Your task to perform on an android device: Open Android settings Image 0: 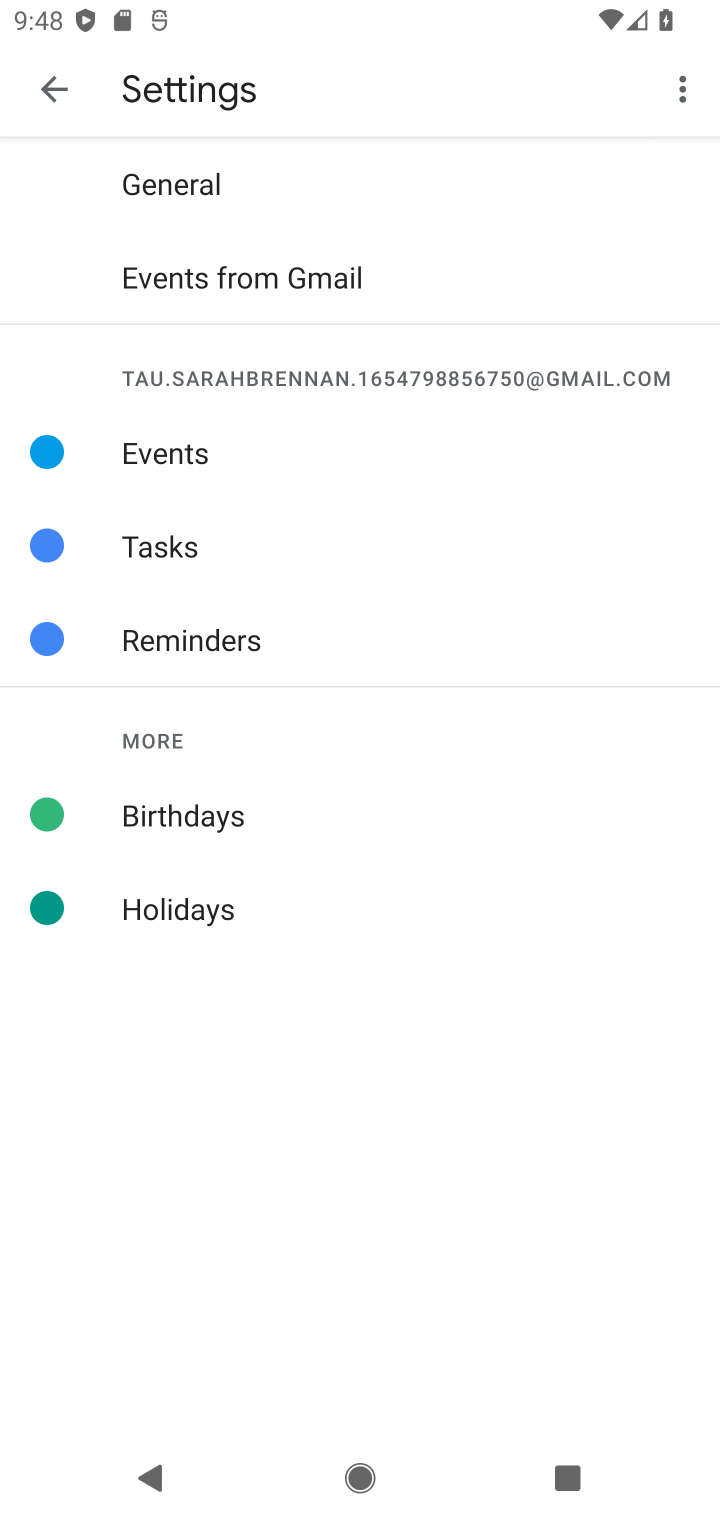
Step 0: press back button
Your task to perform on an android device: Open Android settings Image 1: 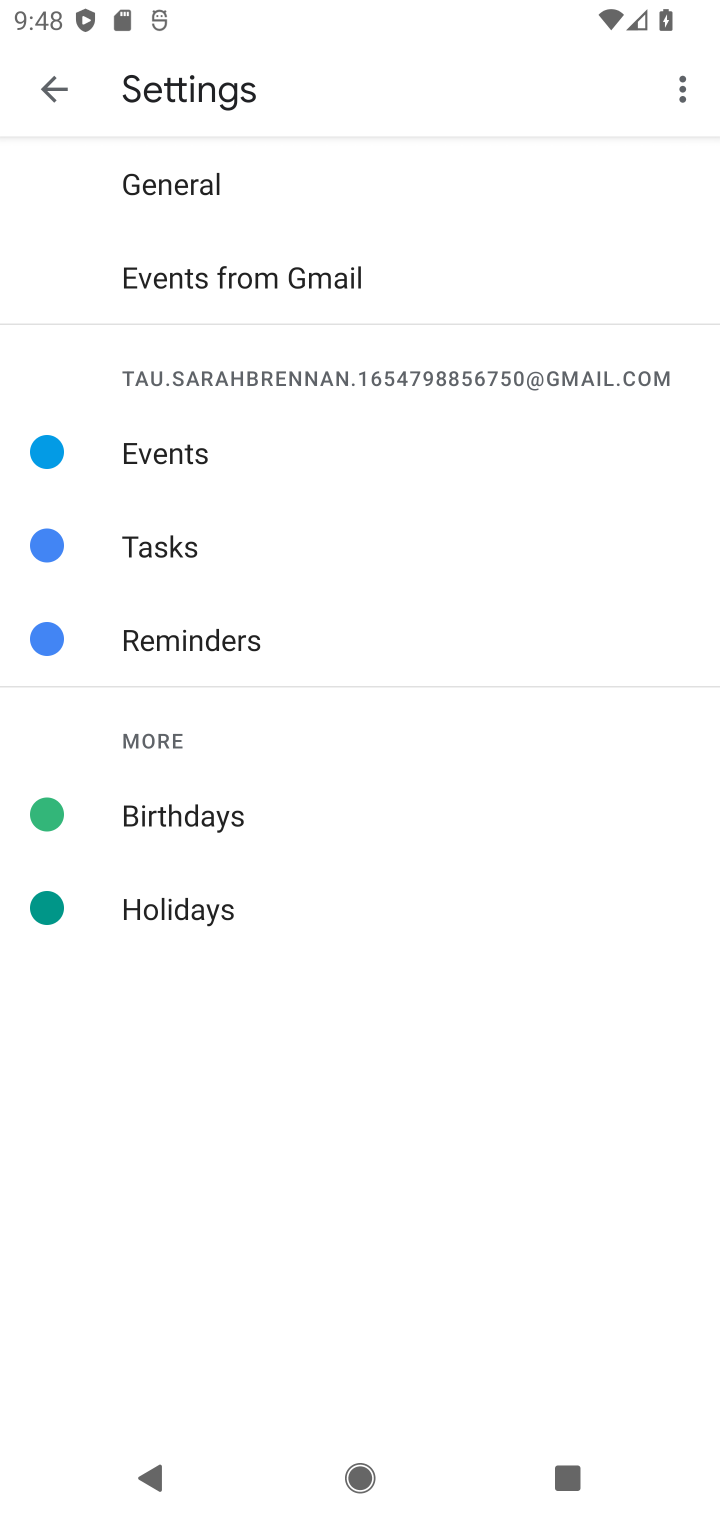
Step 1: press back button
Your task to perform on an android device: Open Android settings Image 2: 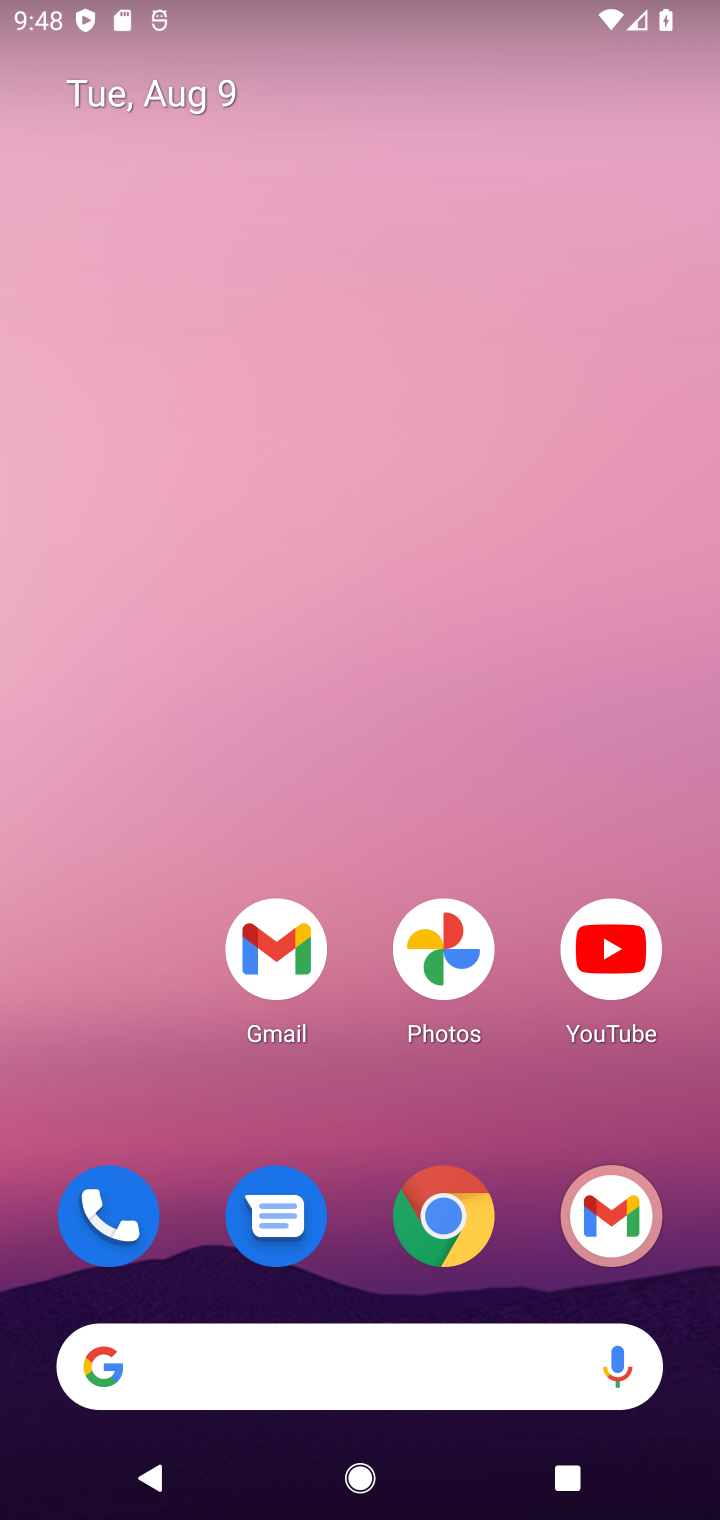
Step 2: press back button
Your task to perform on an android device: Open Android settings Image 3: 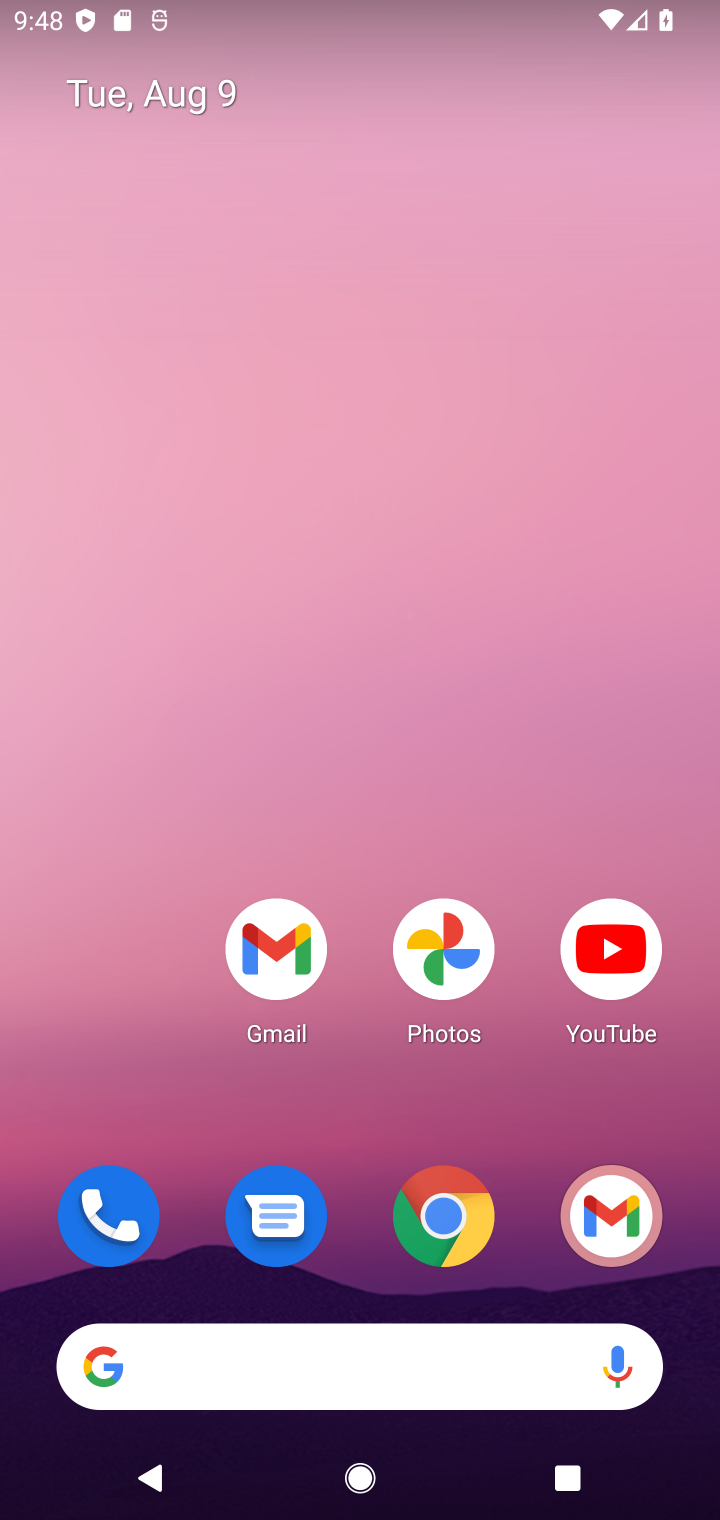
Step 3: drag from (107, 687) to (313, 45)
Your task to perform on an android device: Open Android settings Image 4: 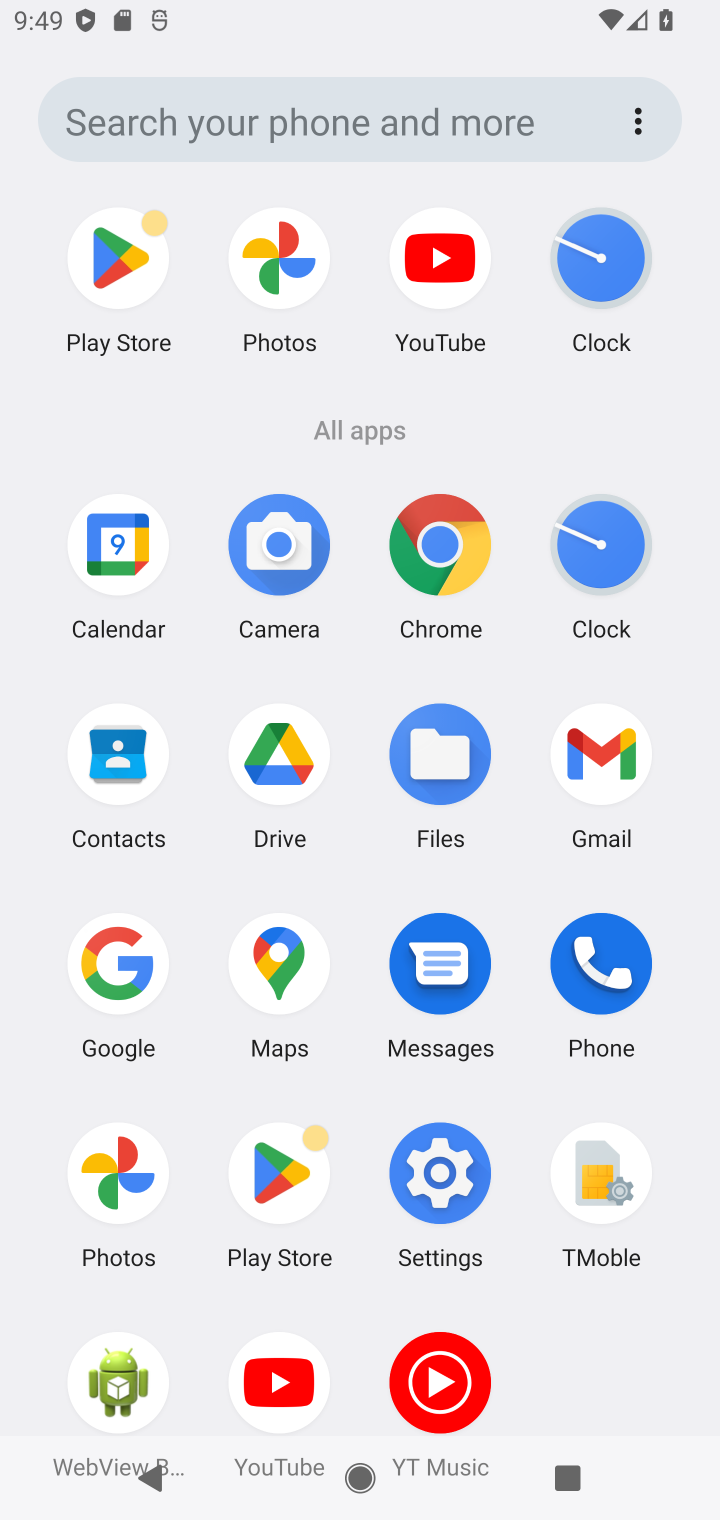
Step 4: click (429, 1202)
Your task to perform on an android device: Open Android settings Image 5: 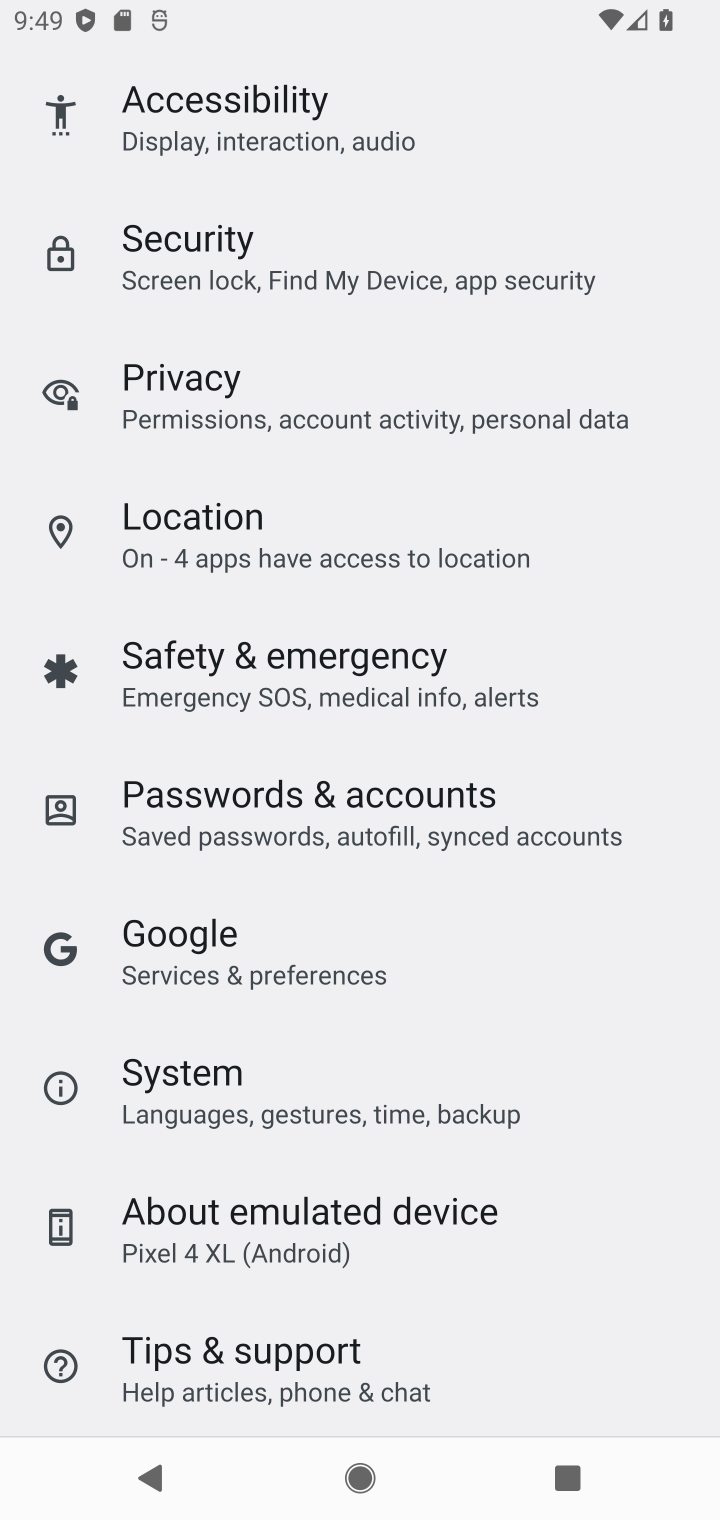
Step 5: drag from (382, 1332) to (707, 69)
Your task to perform on an android device: Open Android settings Image 6: 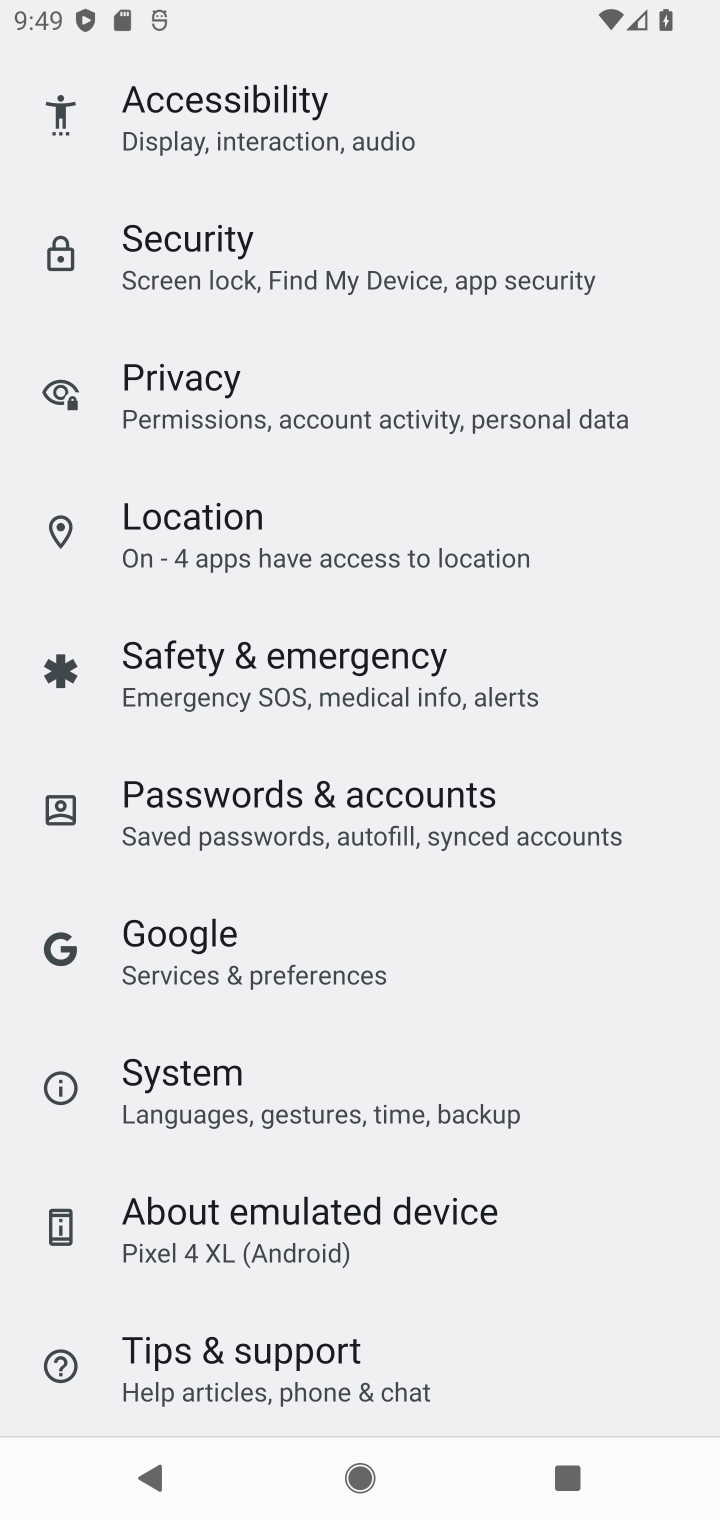
Step 6: click (298, 1258)
Your task to perform on an android device: Open Android settings Image 7: 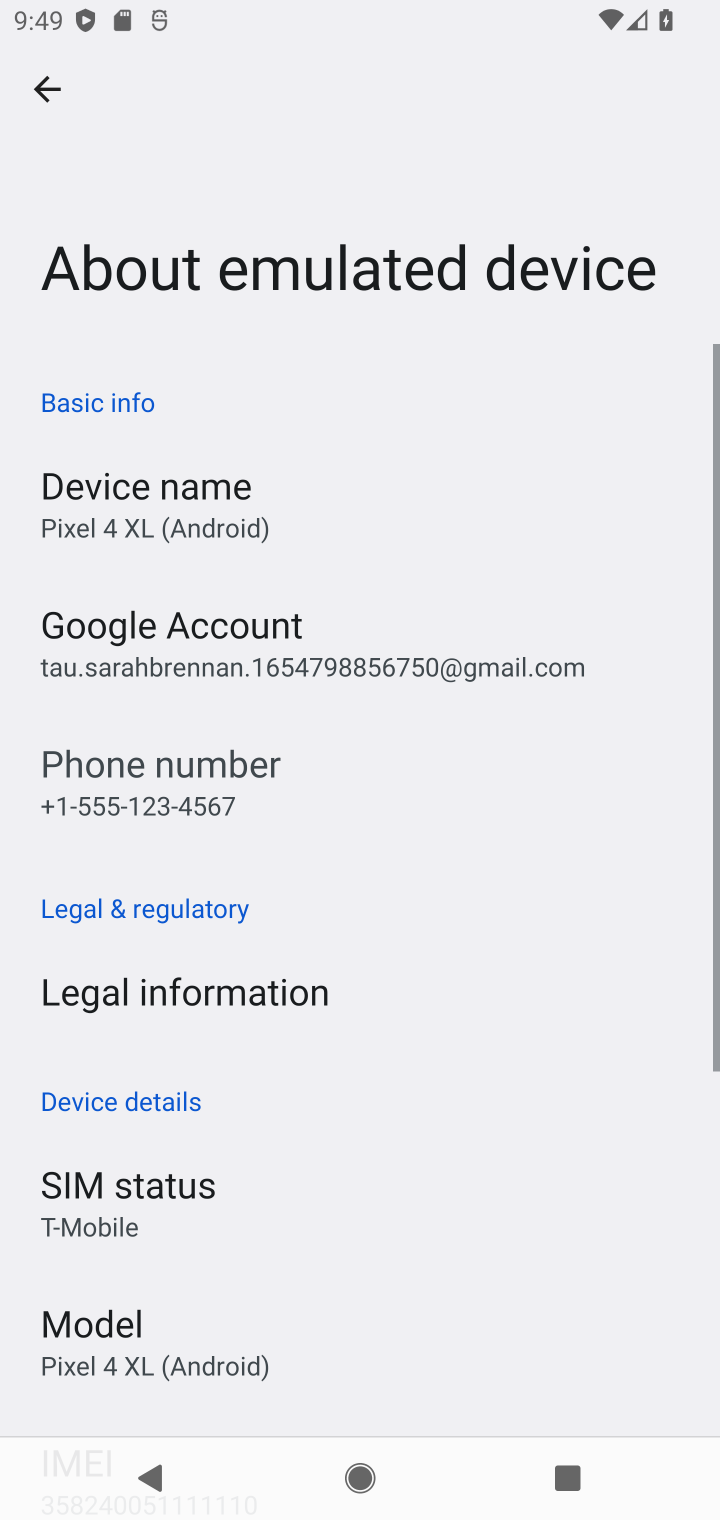
Step 7: task complete